Your task to perform on an android device: Open maps Image 0: 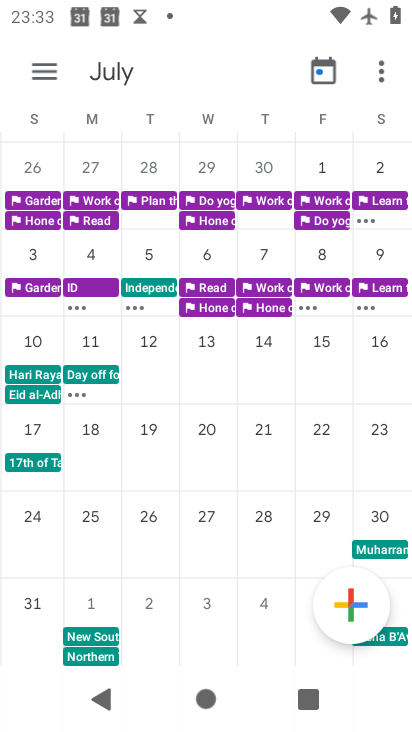
Step 0: press home button
Your task to perform on an android device: Open maps Image 1: 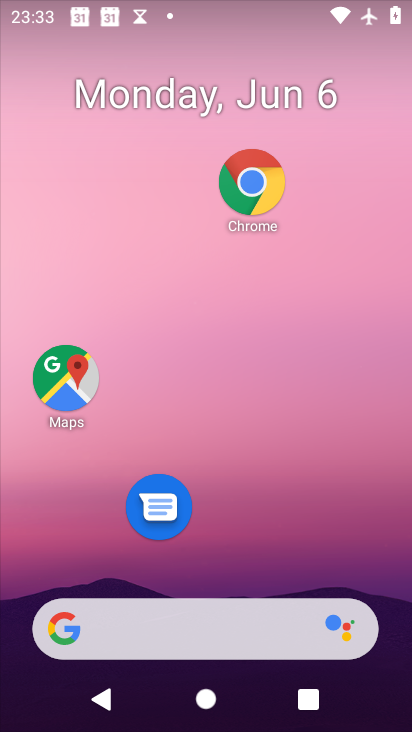
Step 1: click (49, 366)
Your task to perform on an android device: Open maps Image 2: 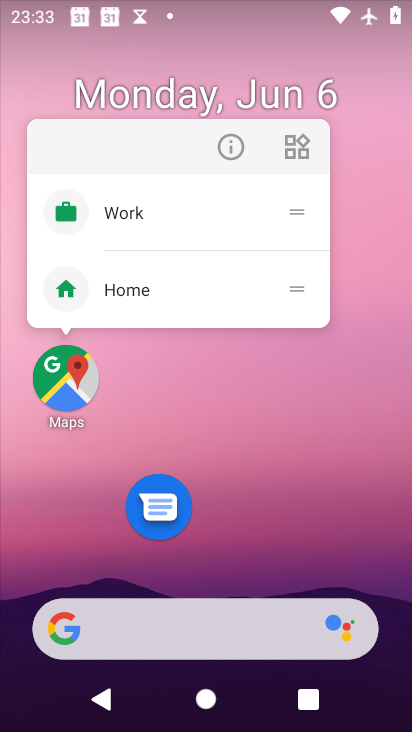
Step 2: click (49, 366)
Your task to perform on an android device: Open maps Image 3: 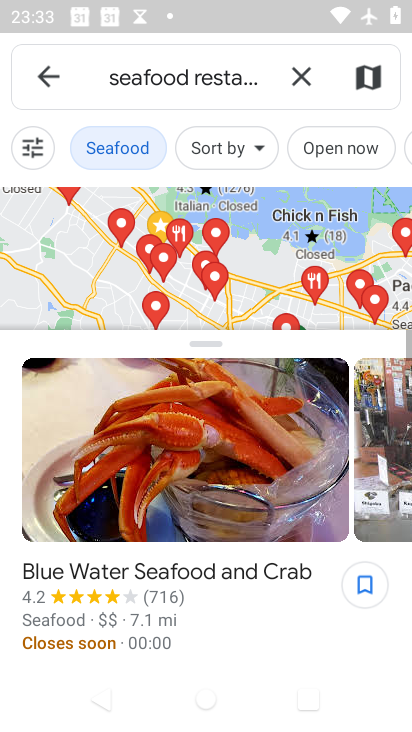
Step 3: click (302, 71)
Your task to perform on an android device: Open maps Image 4: 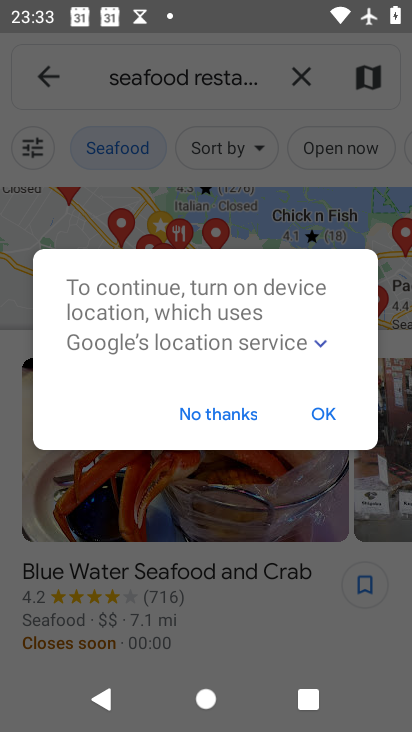
Step 4: click (186, 419)
Your task to perform on an android device: Open maps Image 5: 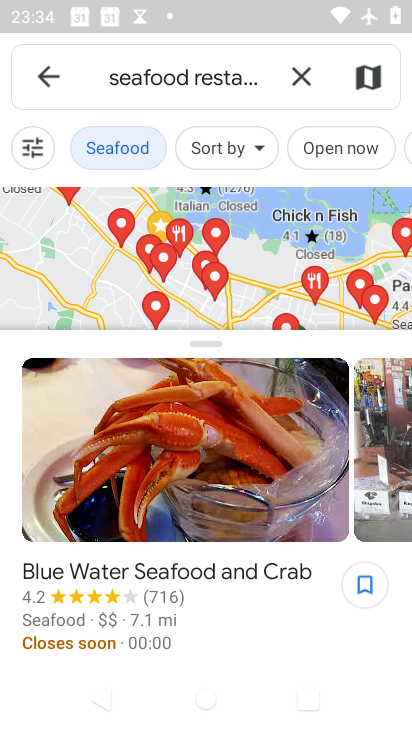
Step 5: task complete